Your task to perform on an android device: Go to Wikipedia Image 0: 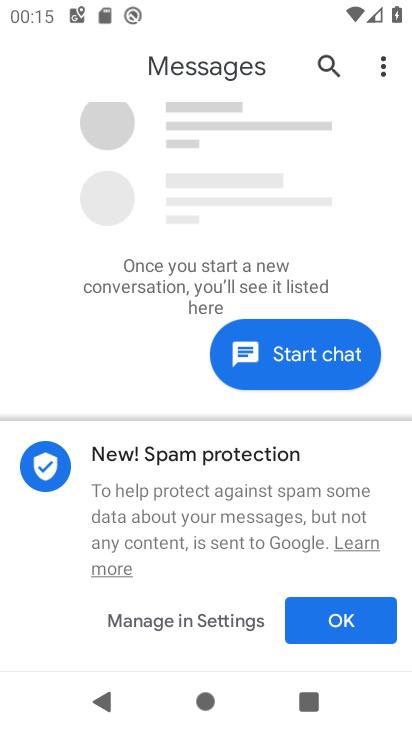
Step 0: press home button
Your task to perform on an android device: Go to Wikipedia Image 1: 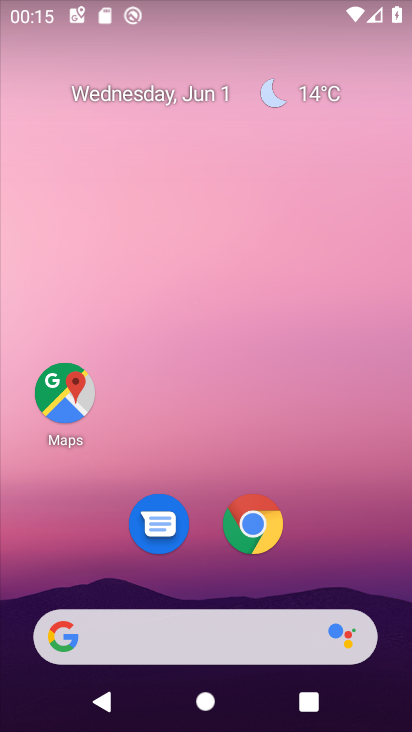
Step 1: click (257, 531)
Your task to perform on an android device: Go to Wikipedia Image 2: 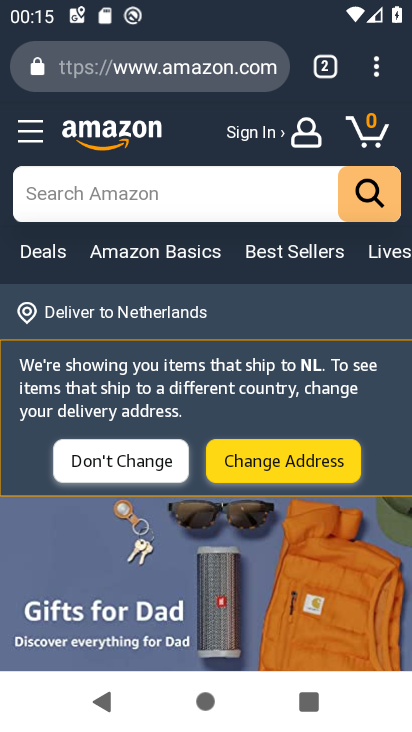
Step 2: click (375, 78)
Your task to perform on an android device: Go to Wikipedia Image 3: 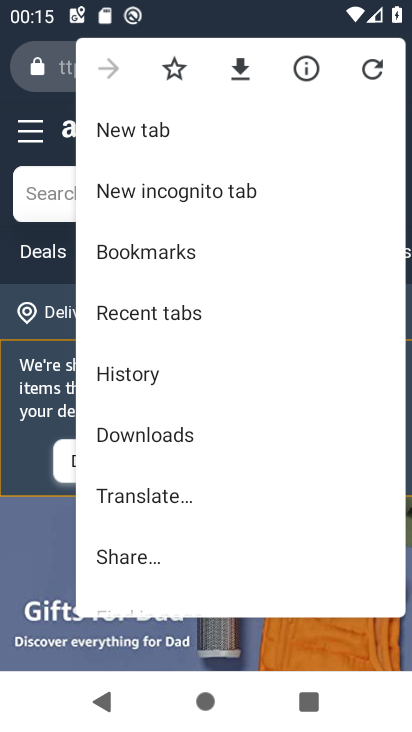
Step 3: click (294, 118)
Your task to perform on an android device: Go to Wikipedia Image 4: 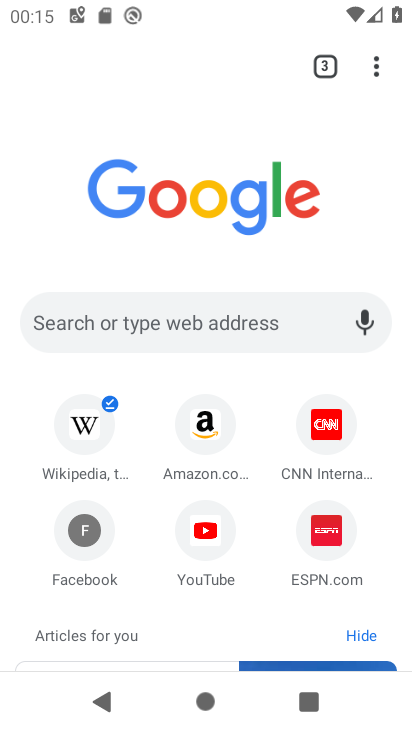
Step 4: click (86, 418)
Your task to perform on an android device: Go to Wikipedia Image 5: 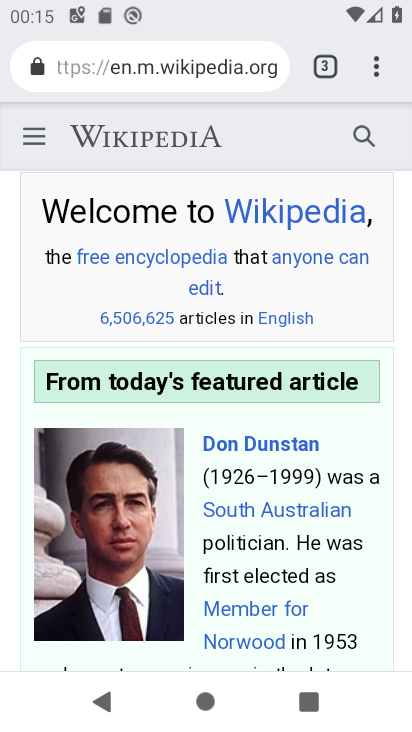
Step 5: task complete